Your task to perform on an android device: Open the map Image 0: 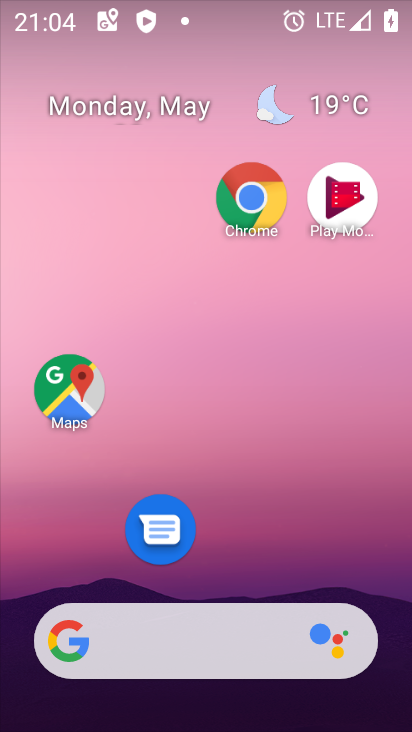
Step 0: click (72, 395)
Your task to perform on an android device: Open the map Image 1: 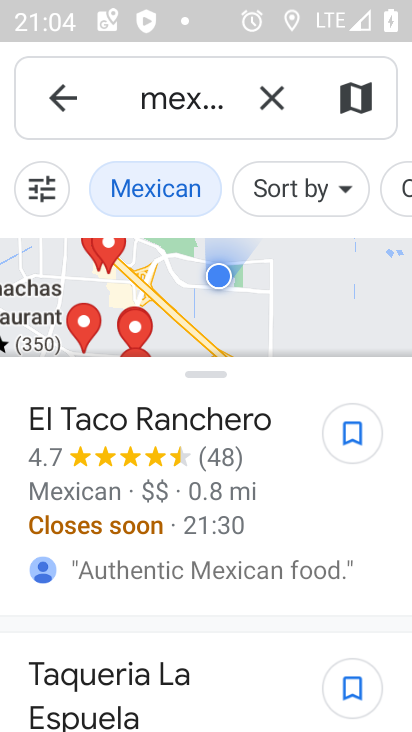
Step 1: click (64, 108)
Your task to perform on an android device: Open the map Image 2: 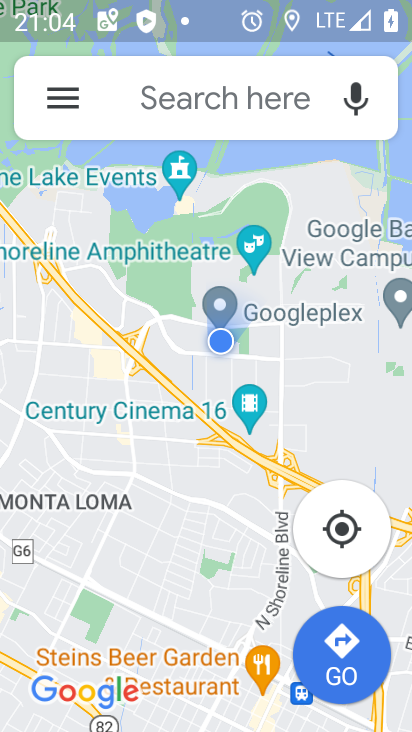
Step 2: task complete